Your task to perform on an android device: When is my next meeting? Image 0: 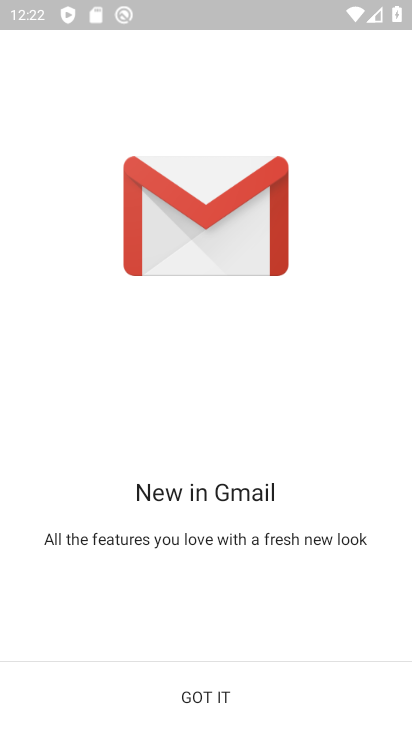
Step 0: press home button
Your task to perform on an android device: When is my next meeting? Image 1: 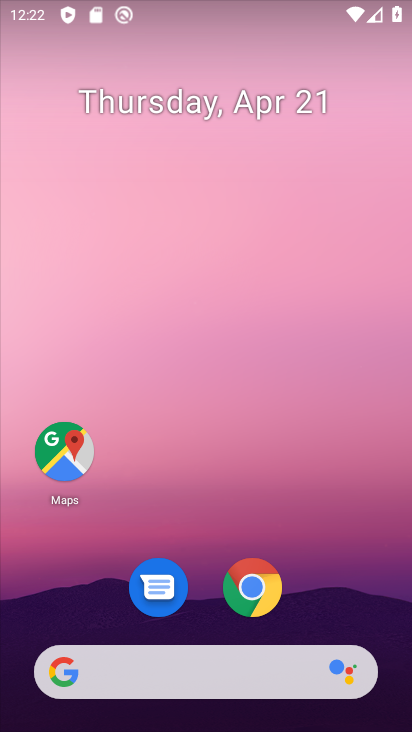
Step 1: drag from (315, 593) to (200, 32)
Your task to perform on an android device: When is my next meeting? Image 2: 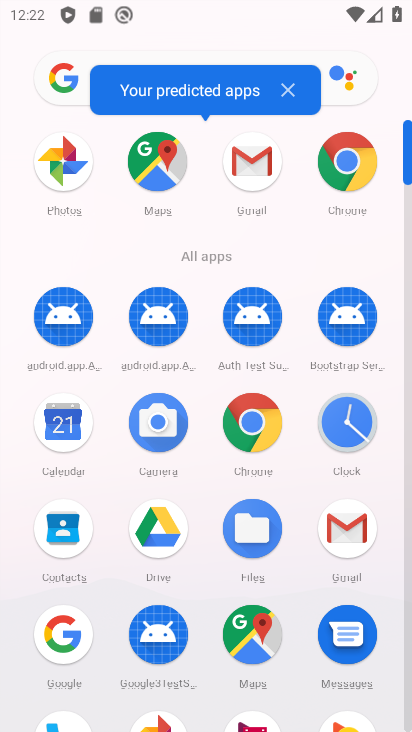
Step 2: click (64, 428)
Your task to perform on an android device: When is my next meeting? Image 3: 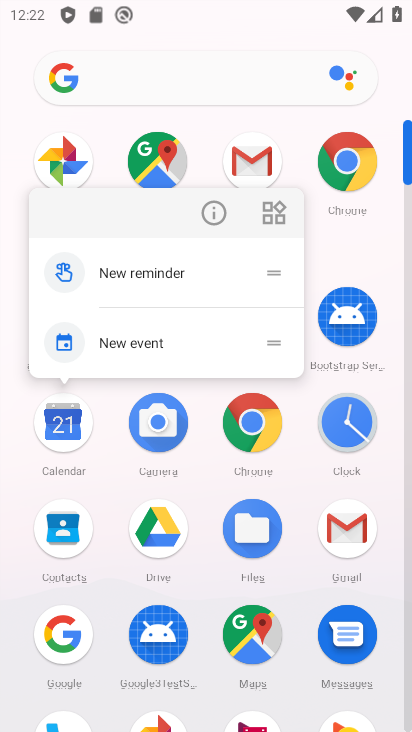
Step 3: click (55, 421)
Your task to perform on an android device: When is my next meeting? Image 4: 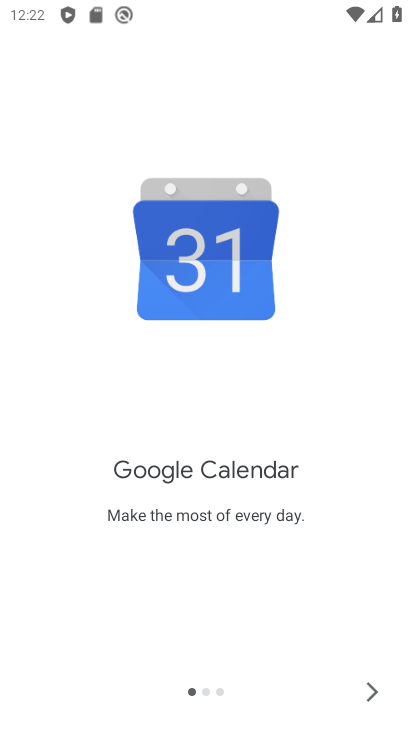
Step 4: click (371, 688)
Your task to perform on an android device: When is my next meeting? Image 5: 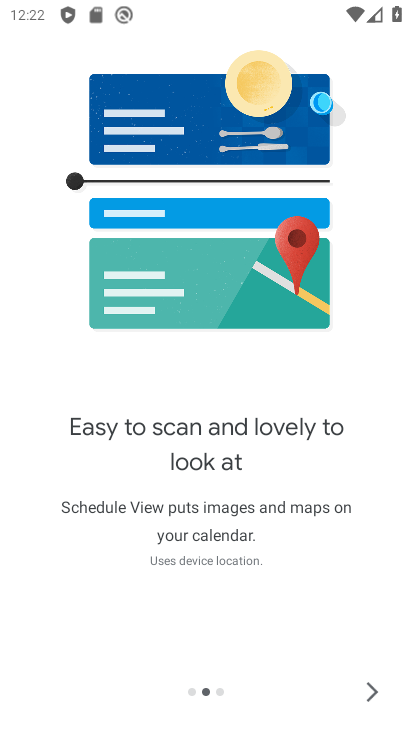
Step 5: click (371, 688)
Your task to perform on an android device: When is my next meeting? Image 6: 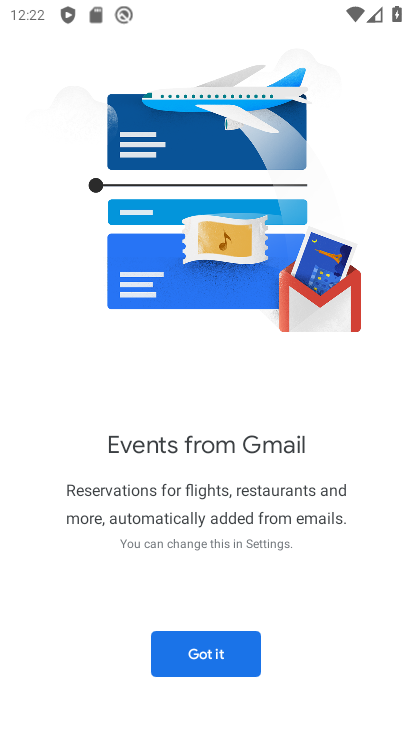
Step 6: click (221, 659)
Your task to perform on an android device: When is my next meeting? Image 7: 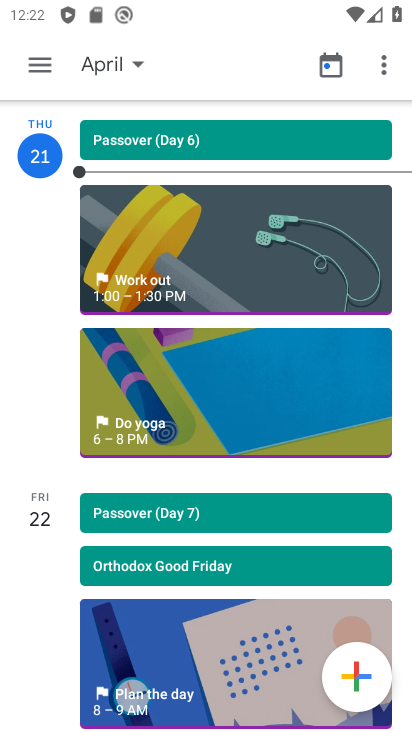
Step 7: click (32, 65)
Your task to perform on an android device: When is my next meeting? Image 8: 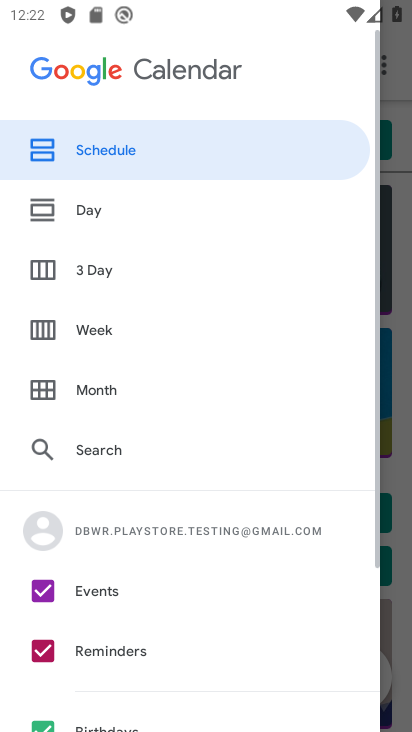
Step 8: drag from (149, 603) to (118, 277)
Your task to perform on an android device: When is my next meeting? Image 9: 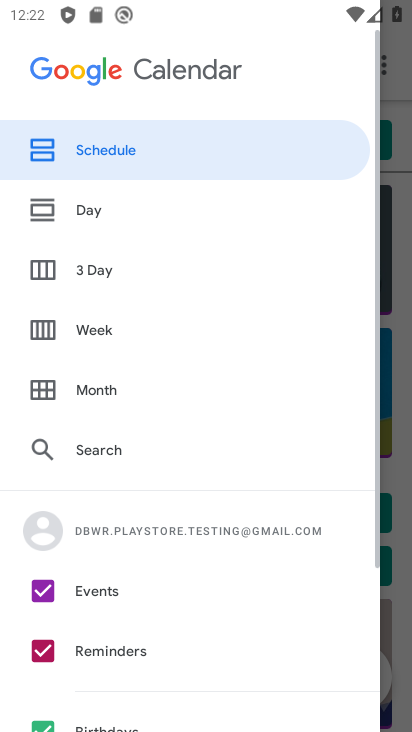
Step 9: drag from (99, 636) to (135, 391)
Your task to perform on an android device: When is my next meeting? Image 10: 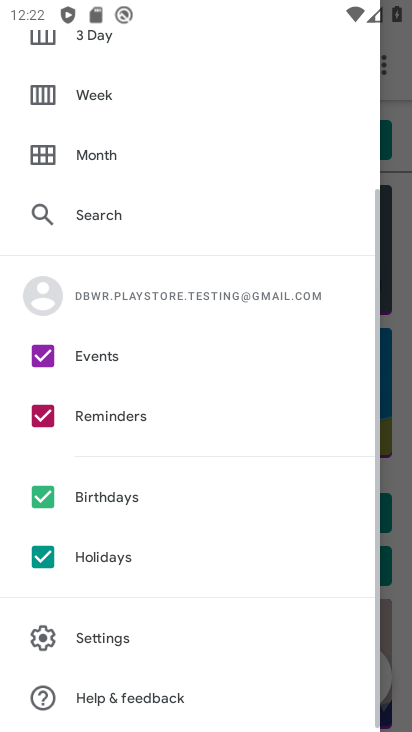
Step 10: drag from (142, 531) to (145, 425)
Your task to perform on an android device: When is my next meeting? Image 11: 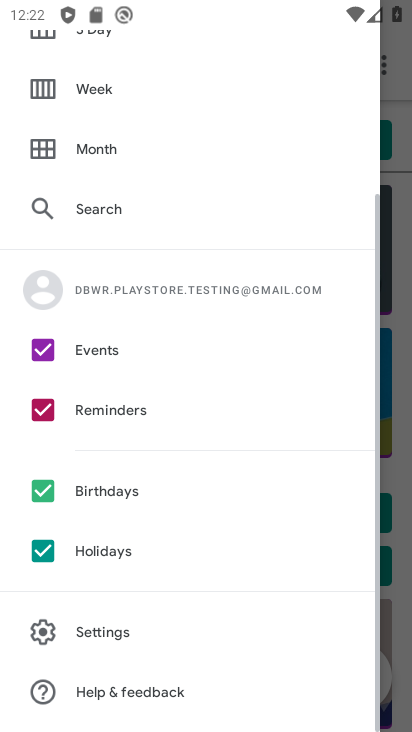
Step 11: drag from (179, 223) to (158, 613)
Your task to perform on an android device: When is my next meeting? Image 12: 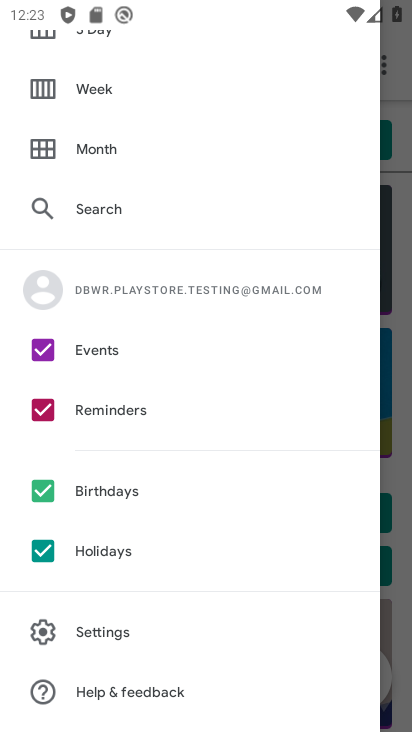
Step 12: drag from (146, 149) to (149, 484)
Your task to perform on an android device: When is my next meeting? Image 13: 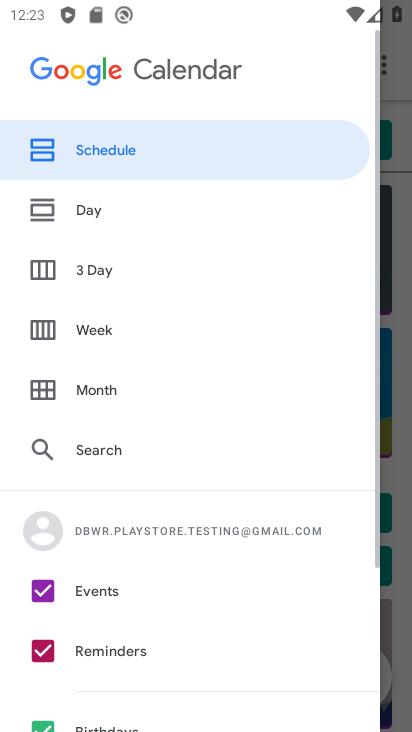
Step 13: click (82, 144)
Your task to perform on an android device: When is my next meeting? Image 14: 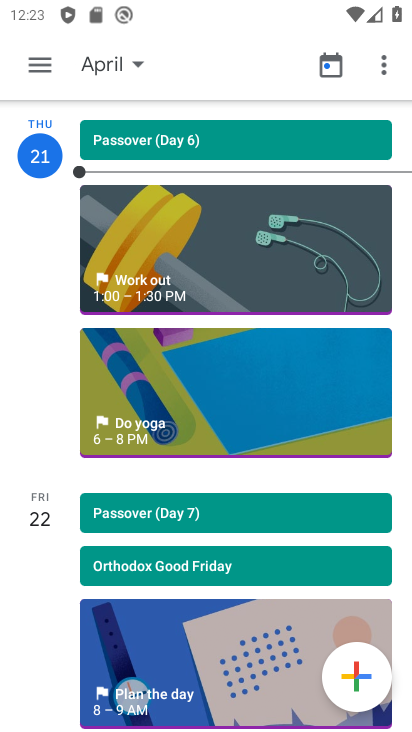
Step 14: click (141, 66)
Your task to perform on an android device: When is my next meeting? Image 15: 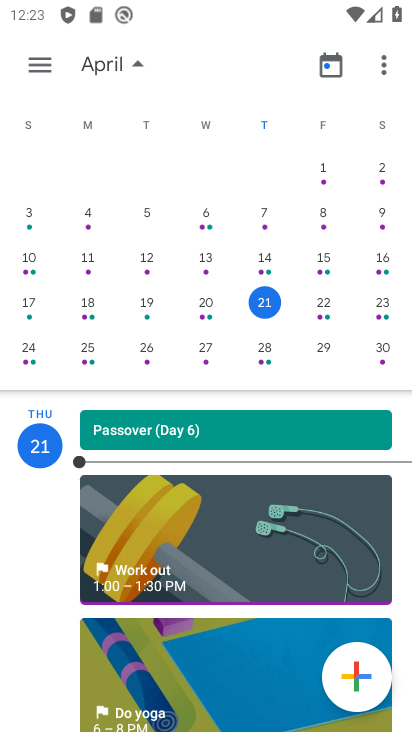
Step 15: click (262, 297)
Your task to perform on an android device: When is my next meeting? Image 16: 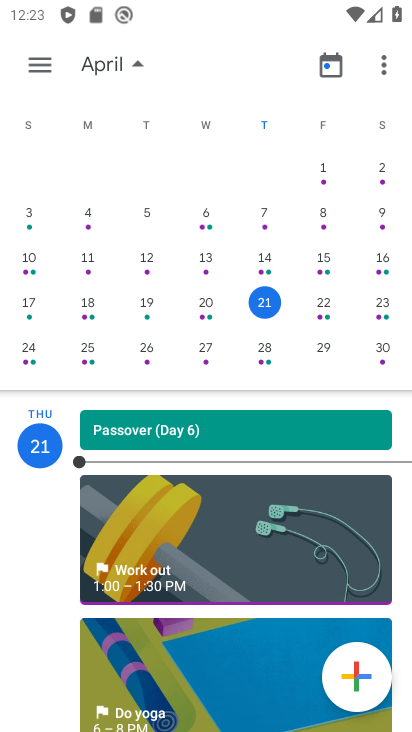
Step 16: task complete